Your task to perform on an android device: View the shopping cart on costco. Add bose soundsport free to the cart on costco Image 0: 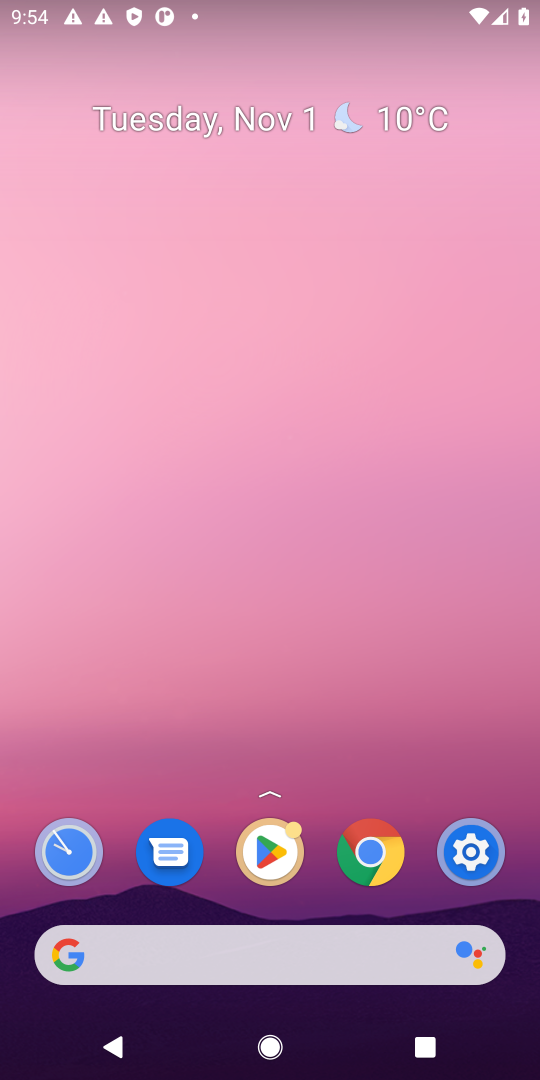
Step 0: click (61, 950)
Your task to perform on an android device: View the shopping cart on costco. Add bose soundsport free to the cart on costco Image 1: 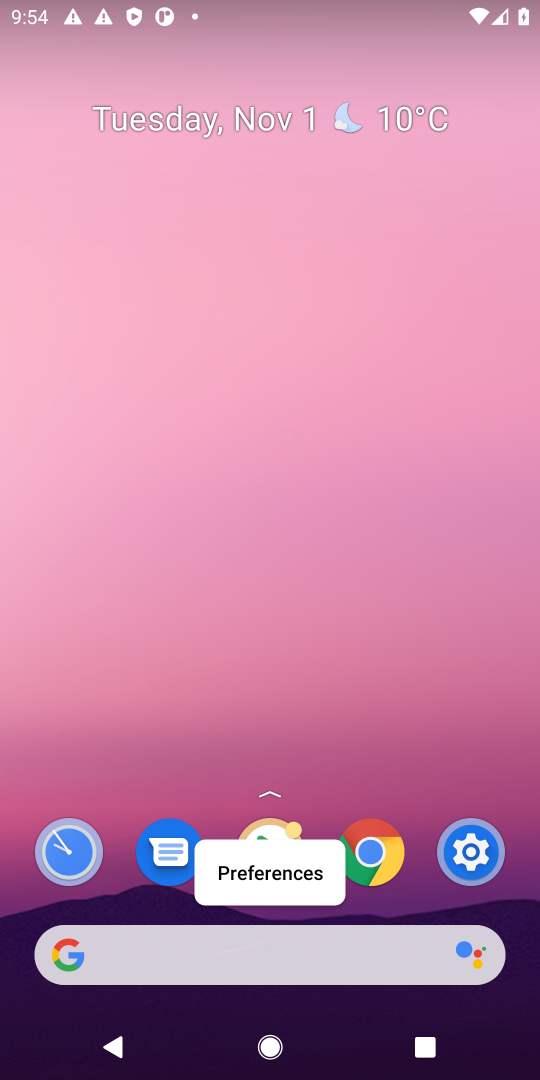
Step 1: click (63, 969)
Your task to perform on an android device: View the shopping cart on costco. Add bose soundsport free to the cart on costco Image 2: 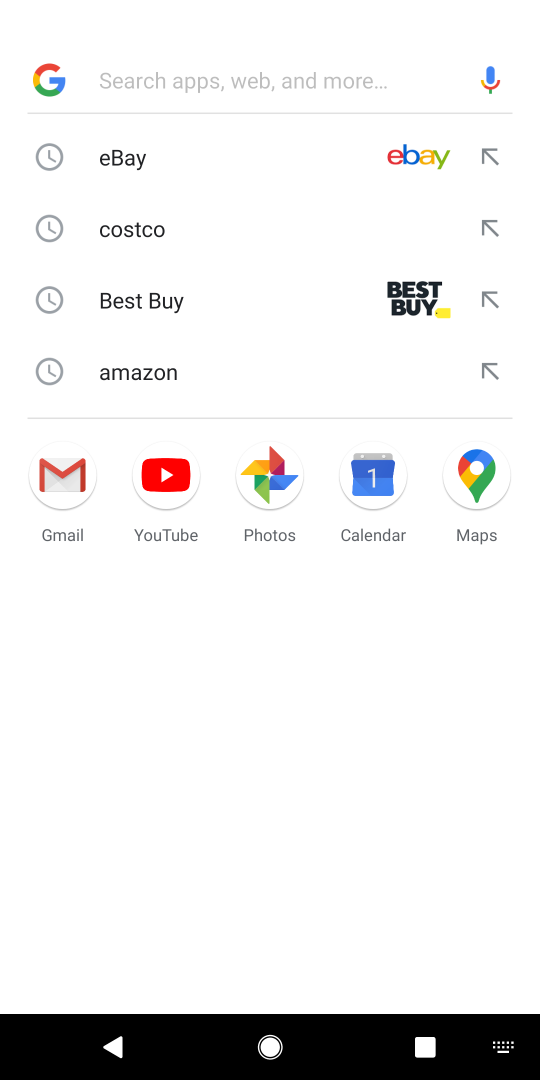
Step 2: click (135, 226)
Your task to perform on an android device: View the shopping cart on costco. Add bose soundsport free to the cart on costco Image 3: 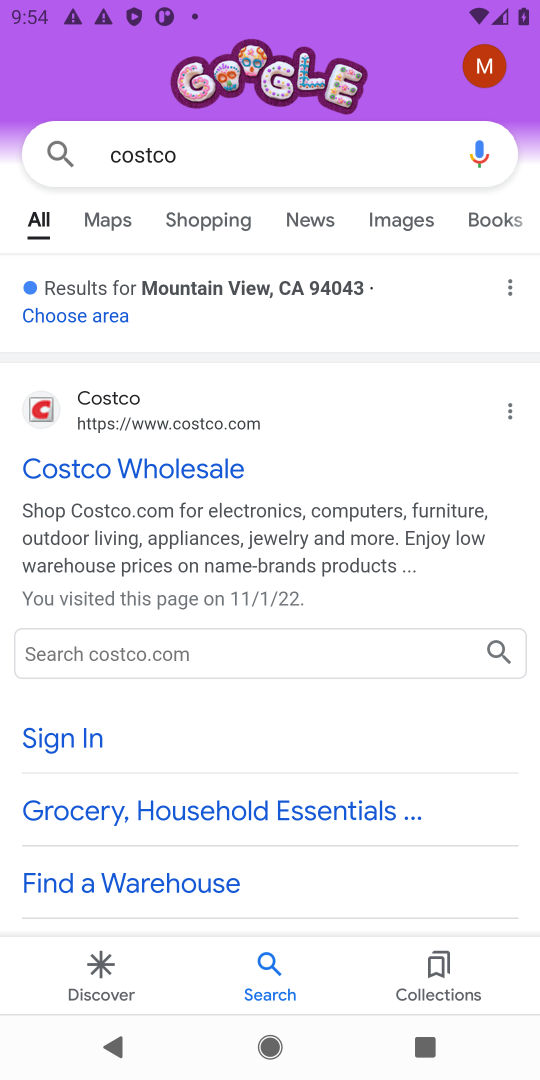
Step 3: click (127, 470)
Your task to perform on an android device: View the shopping cart on costco. Add bose soundsport free to the cart on costco Image 4: 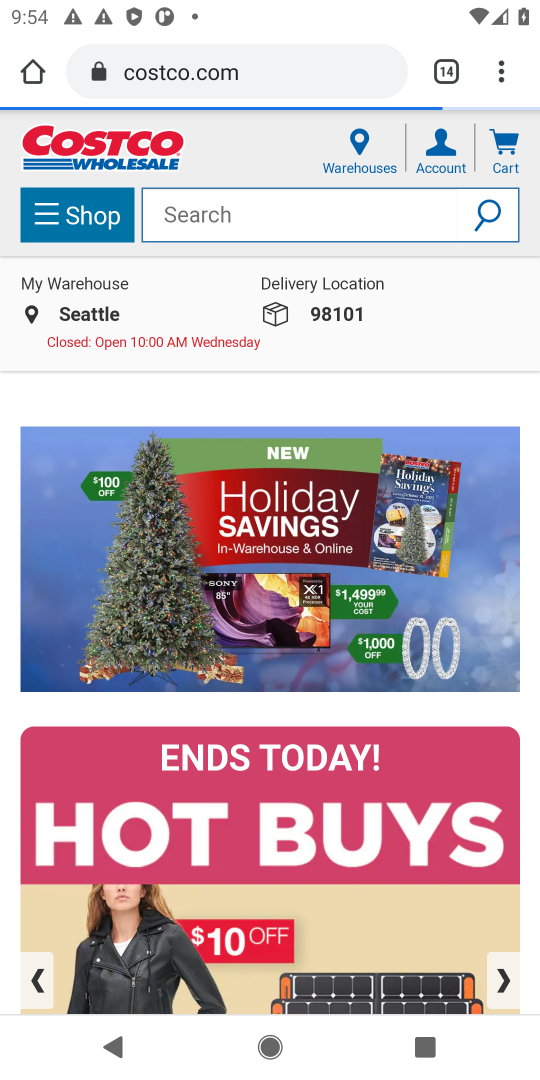
Step 4: click (326, 213)
Your task to perform on an android device: View the shopping cart on costco. Add bose soundsport free to the cart on costco Image 5: 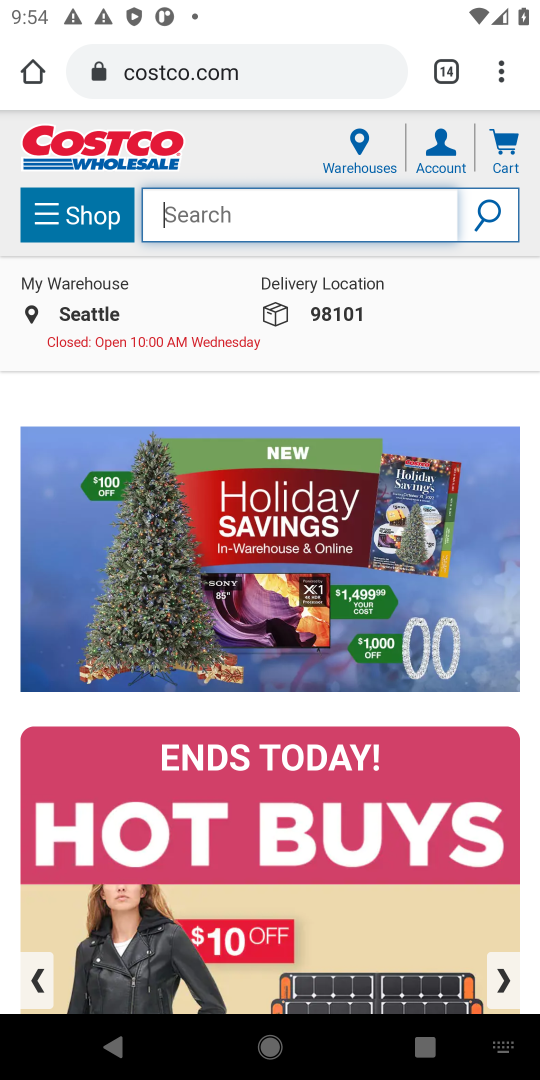
Step 5: type "bose soundsport free"
Your task to perform on an android device: View the shopping cart on costco. Add bose soundsport free to the cart on costco Image 6: 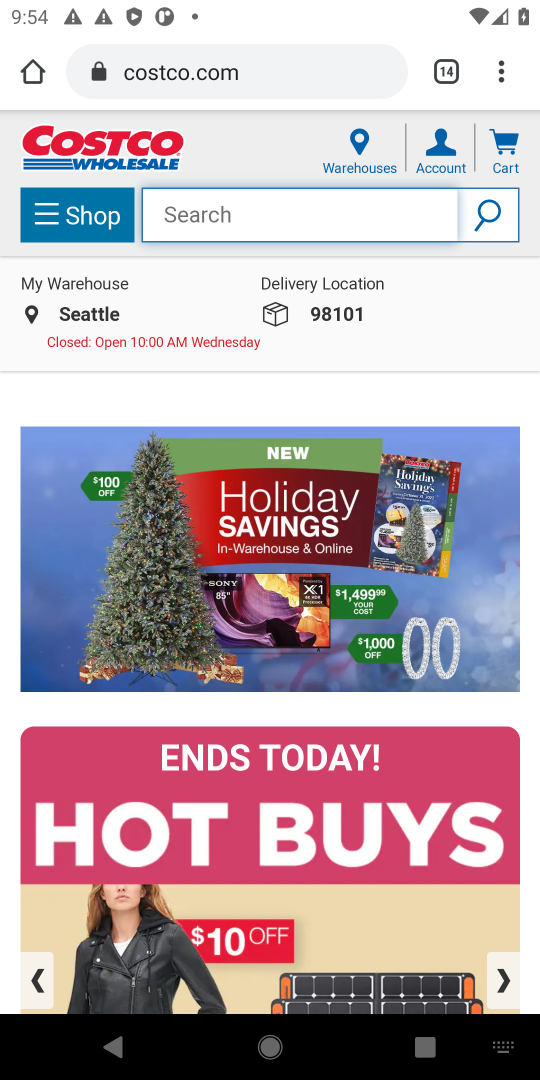
Step 6: click (208, 213)
Your task to perform on an android device: View the shopping cart on costco. Add bose soundsport free to the cart on costco Image 7: 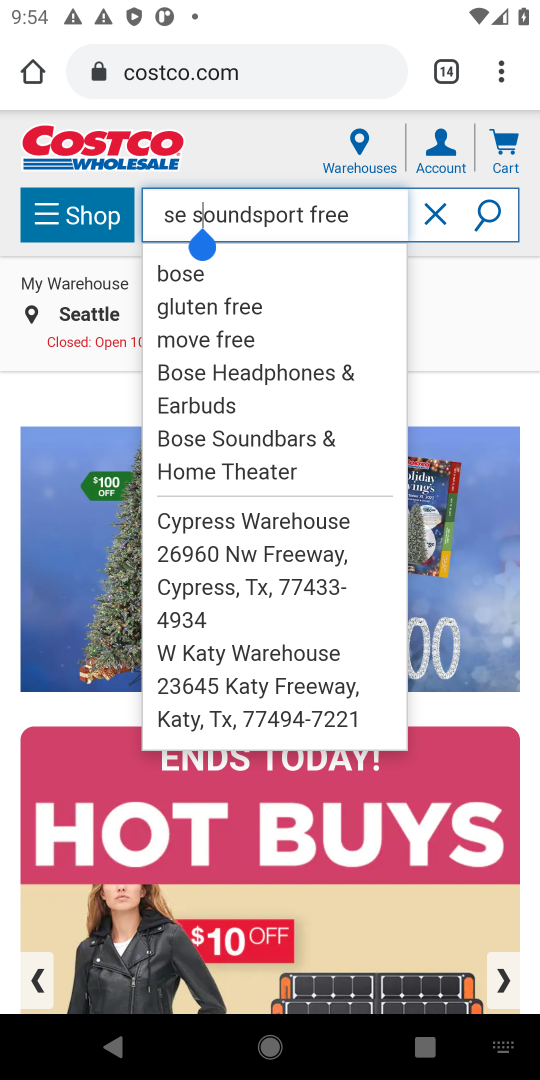
Step 7: press enter
Your task to perform on an android device: View the shopping cart on costco. Add bose soundsport free to the cart on costco Image 8: 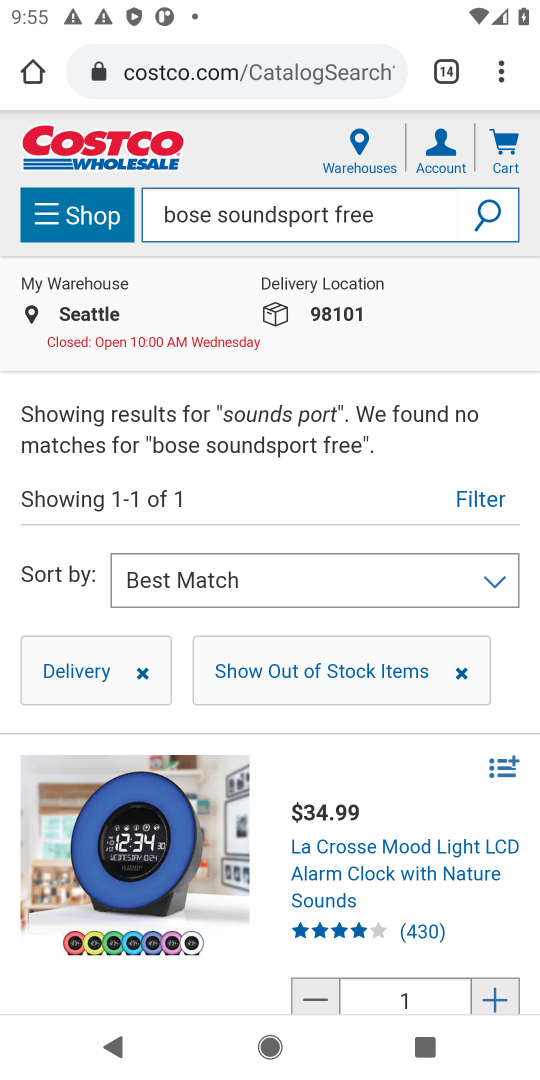
Step 8: task complete